Your task to perform on an android device: Go to internet settings Image 0: 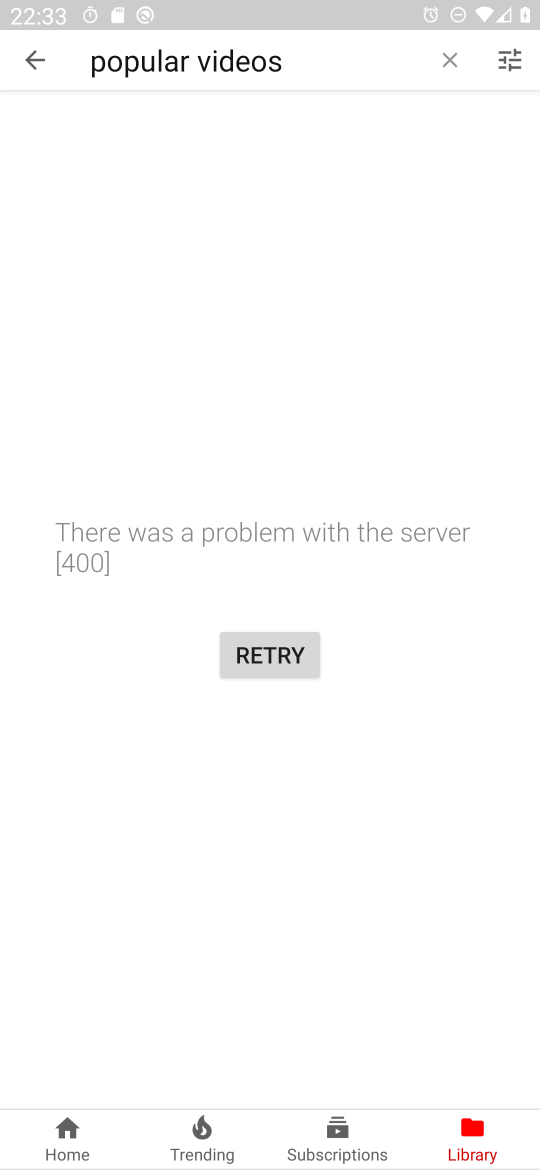
Step 0: press home button
Your task to perform on an android device: Go to internet settings Image 1: 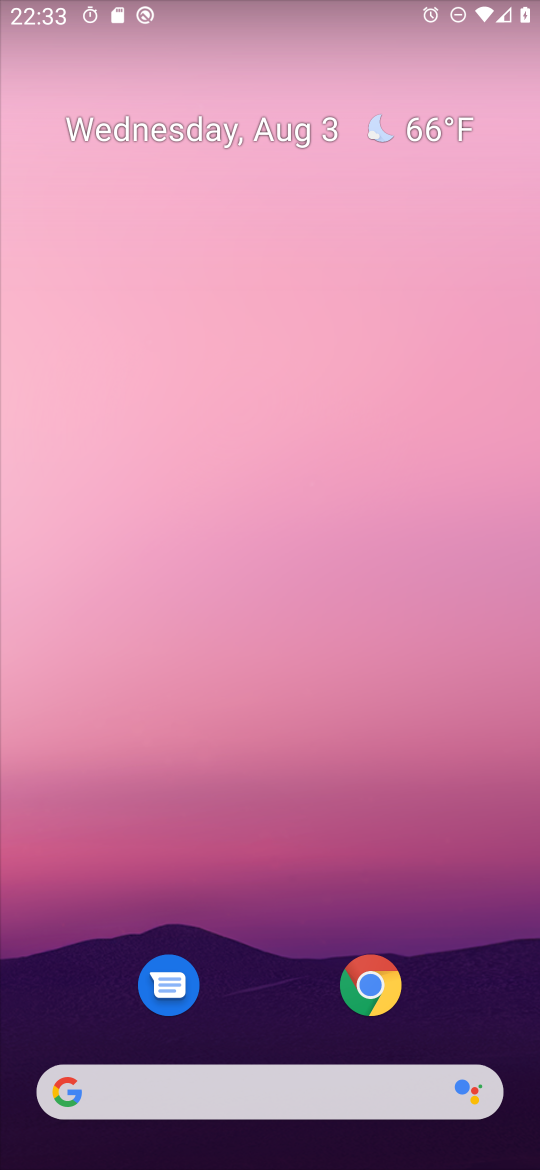
Step 1: drag from (279, 1007) to (263, 362)
Your task to perform on an android device: Go to internet settings Image 2: 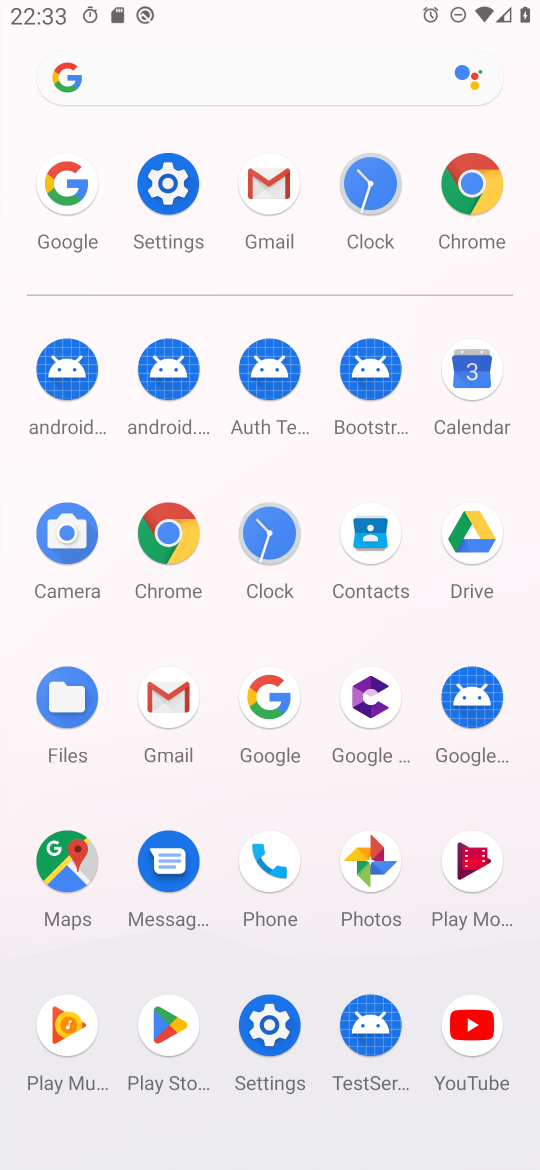
Step 2: click (173, 197)
Your task to perform on an android device: Go to internet settings Image 3: 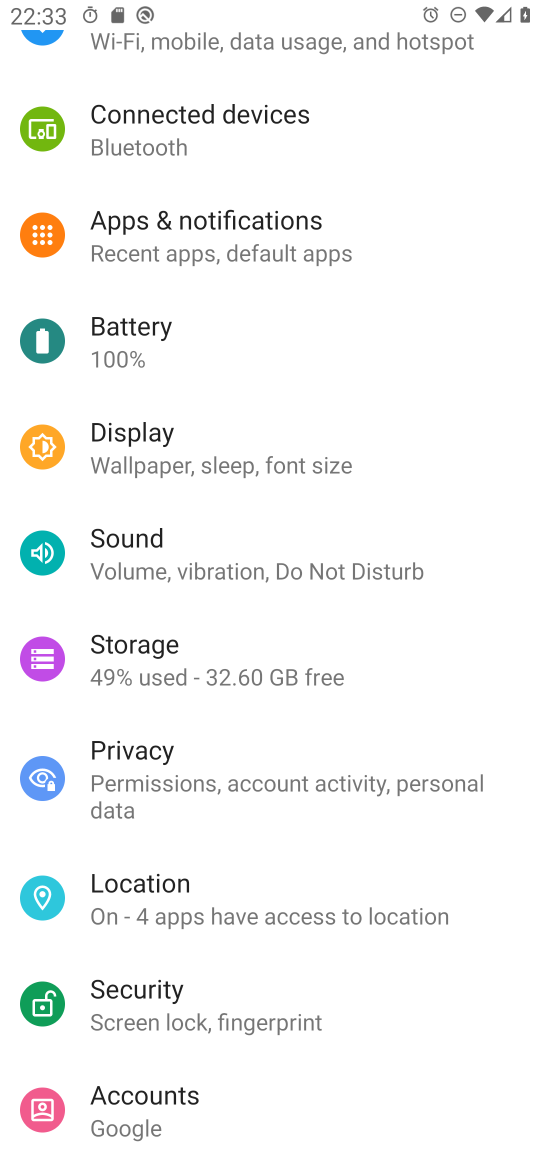
Step 3: drag from (273, 252) to (353, 901)
Your task to perform on an android device: Go to internet settings Image 4: 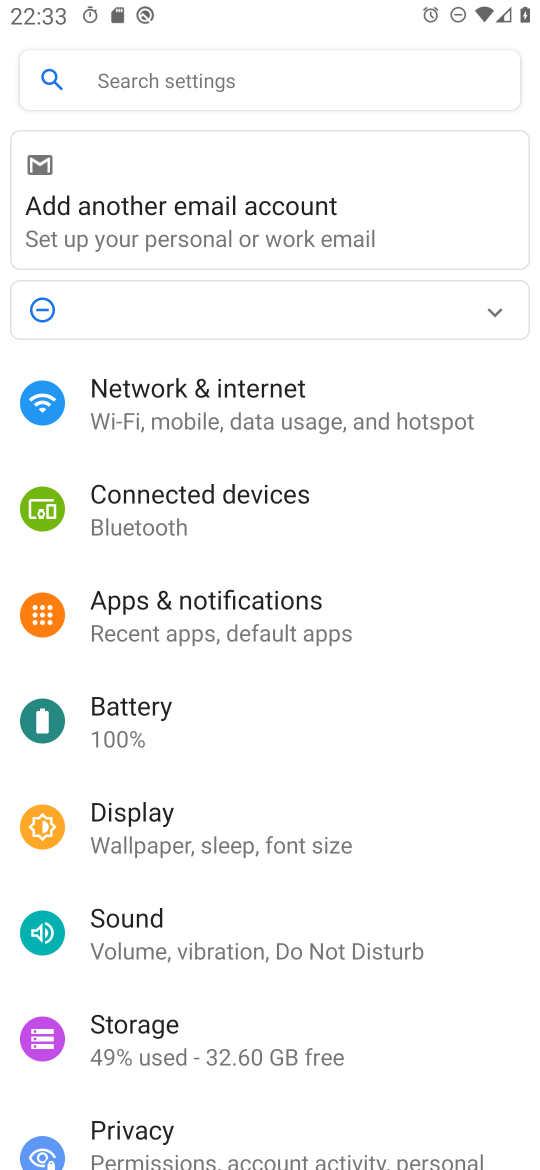
Step 4: click (267, 384)
Your task to perform on an android device: Go to internet settings Image 5: 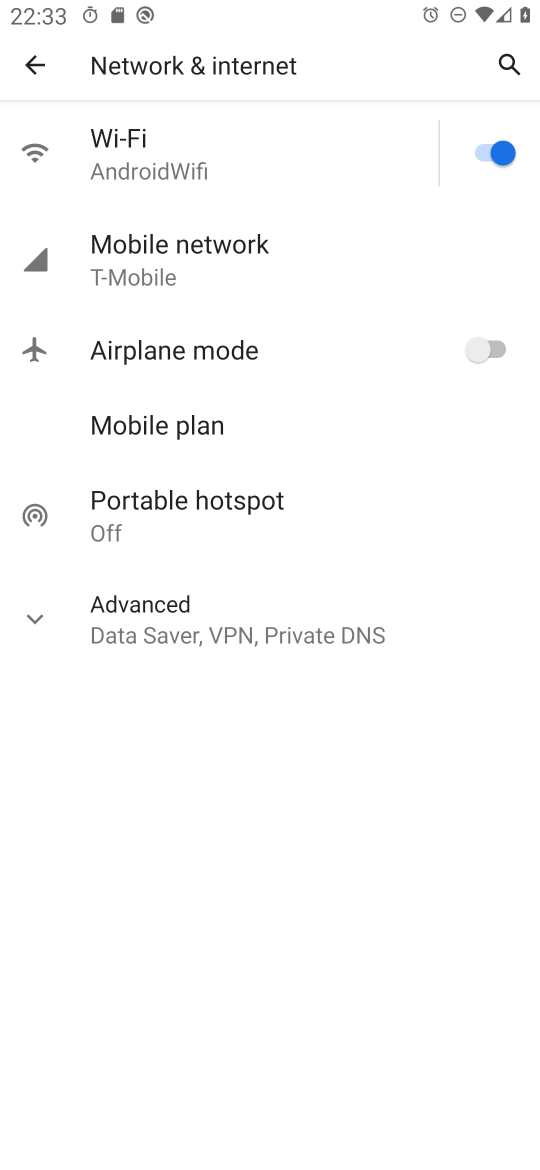
Step 5: task complete